Your task to perform on an android device: Go to Yahoo.com Image 0: 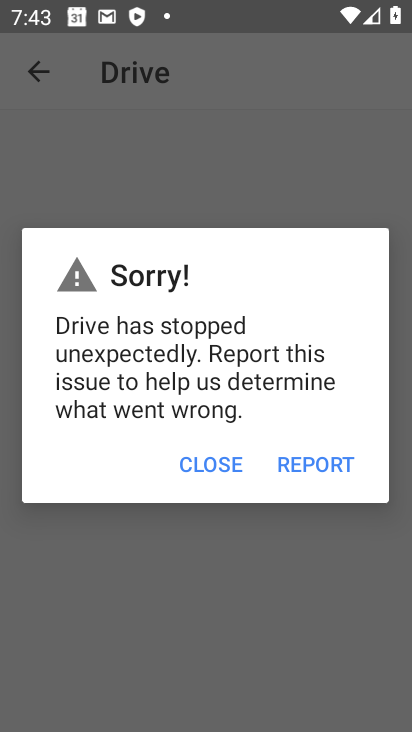
Step 0: press home button
Your task to perform on an android device: Go to Yahoo.com Image 1: 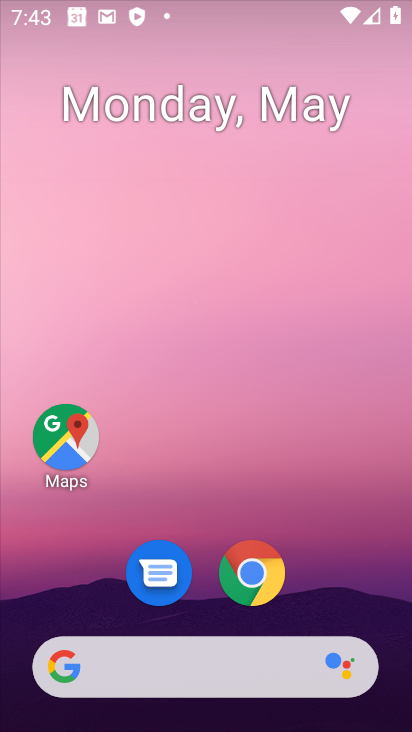
Step 1: drag from (192, 655) to (215, 164)
Your task to perform on an android device: Go to Yahoo.com Image 2: 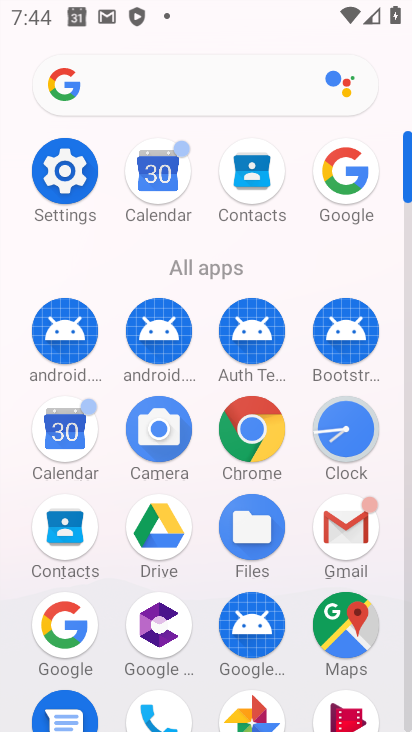
Step 2: drag from (122, 549) to (134, 289)
Your task to perform on an android device: Go to Yahoo.com Image 3: 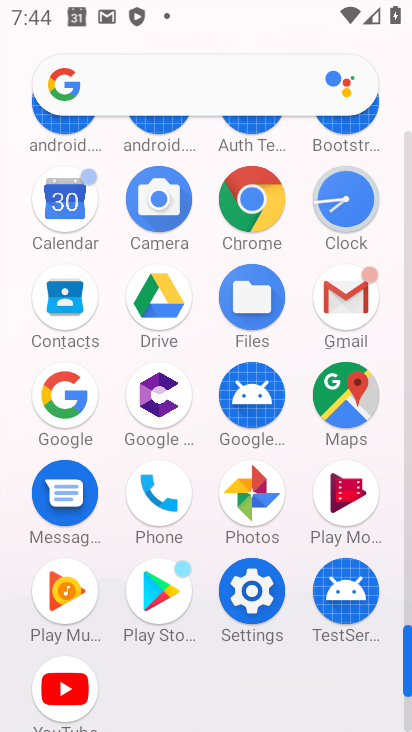
Step 3: click (259, 215)
Your task to perform on an android device: Go to Yahoo.com Image 4: 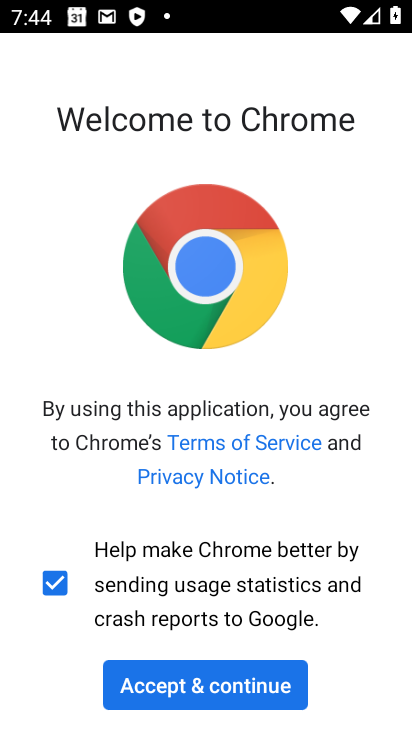
Step 4: click (205, 698)
Your task to perform on an android device: Go to Yahoo.com Image 5: 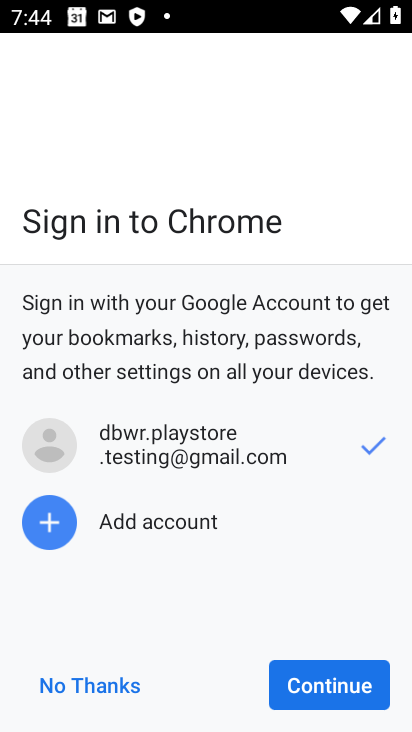
Step 5: click (346, 685)
Your task to perform on an android device: Go to Yahoo.com Image 6: 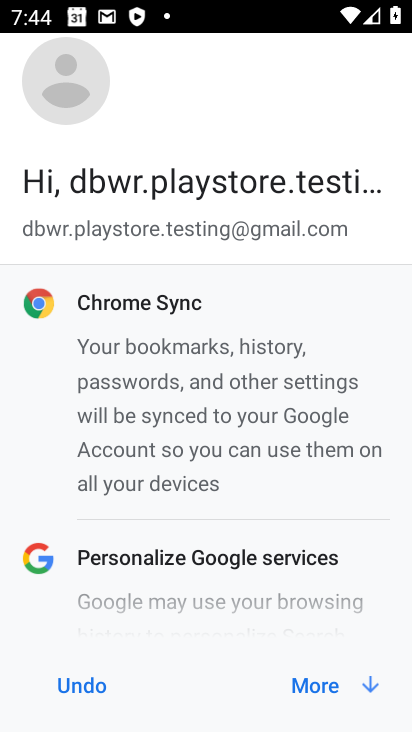
Step 6: click (348, 686)
Your task to perform on an android device: Go to Yahoo.com Image 7: 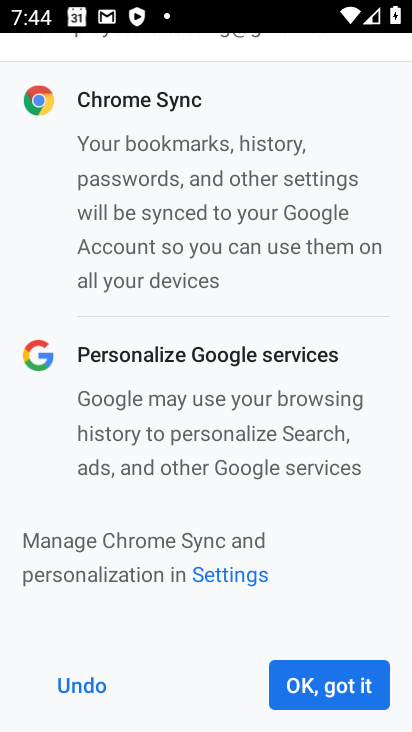
Step 7: click (347, 686)
Your task to perform on an android device: Go to Yahoo.com Image 8: 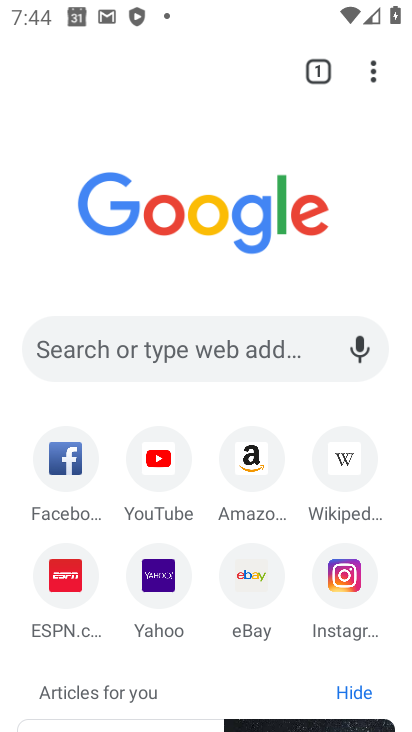
Step 8: click (151, 610)
Your task to perform on an android device: Go to Yahoo.com Image 9: 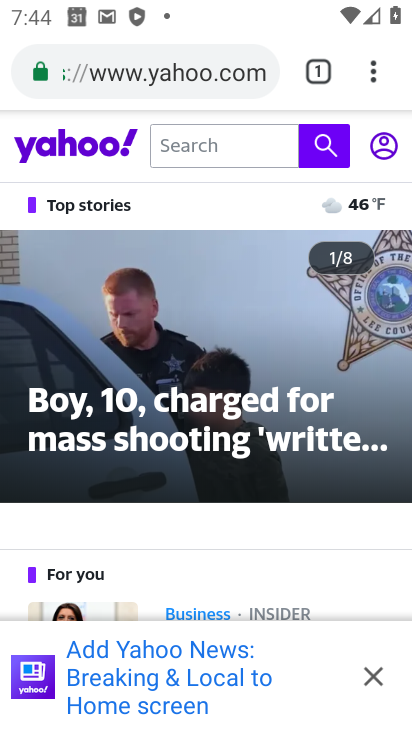
Step 9: task complete